Your task to perform on an android device: What is the recent news? Image 0: 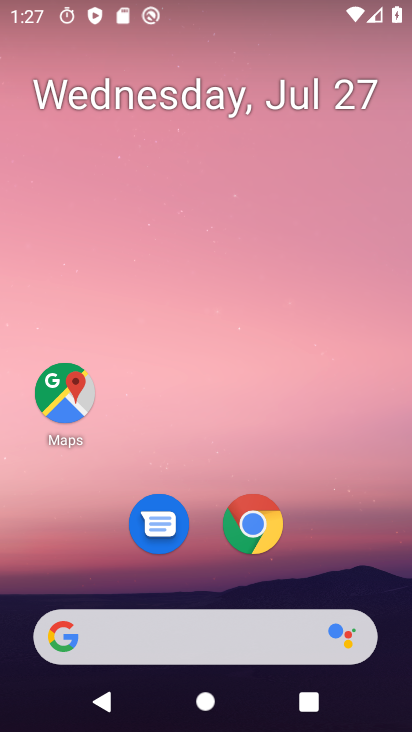
Step 0: click (222, 643)
Your task to perform on an android device: What is the recent news? Image 1: 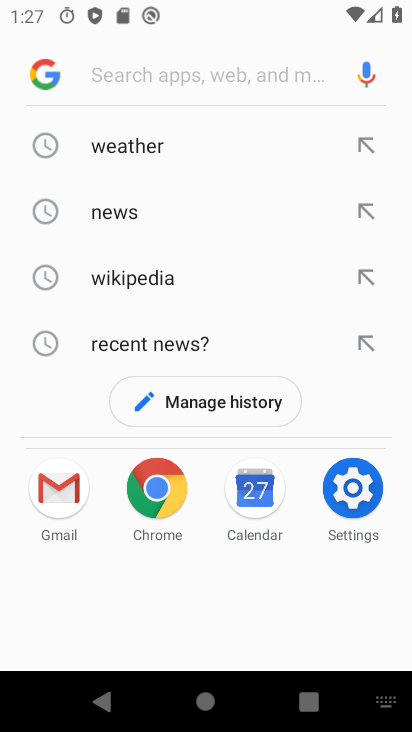
Step 1: click (125, 213)
Your task to perform on an android device: What is the recent news? Image 2: 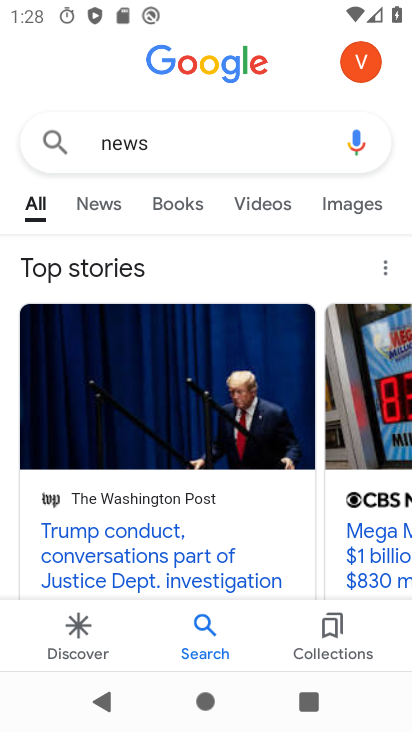
Step 2: task complete